Your task to perform on an android device: turn off improve location accuracy Image 0: 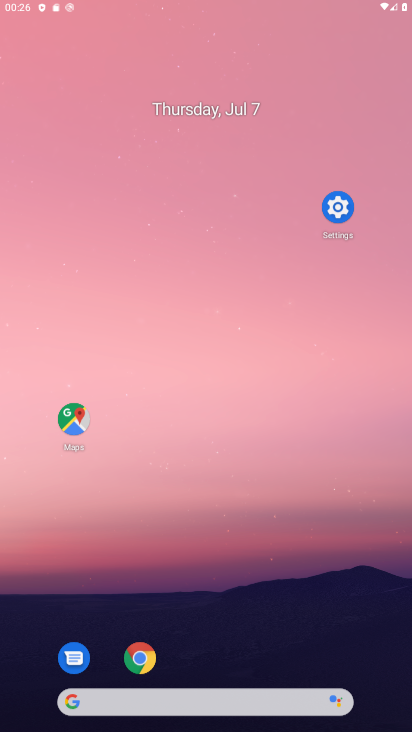
Step 0: press back button
Your task to perform on an android device: turn off improve location accuracy Image 1: 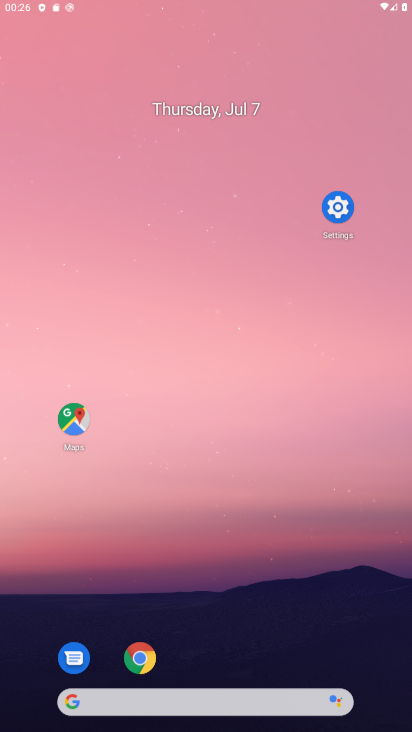
Step 1: press home button
Your task to perform on an android device: turn off improve location accuracy Image 2: 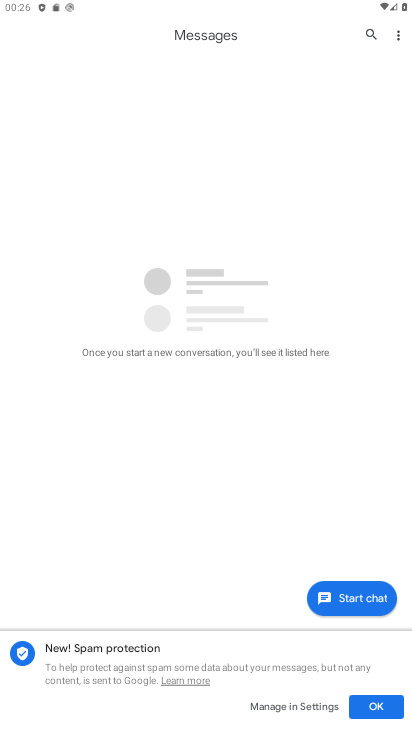
Step 2: click (162, 17)
Your task to perform on an android device: turn off improve location accuracy Image 3: 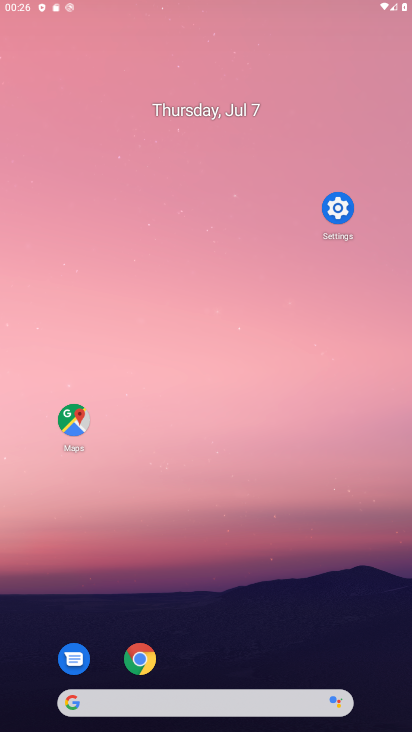
Step 3: drag from (193, 471) to (153, 18)
Your task to perform on an android device: turn off improve location accuracy Image 4: 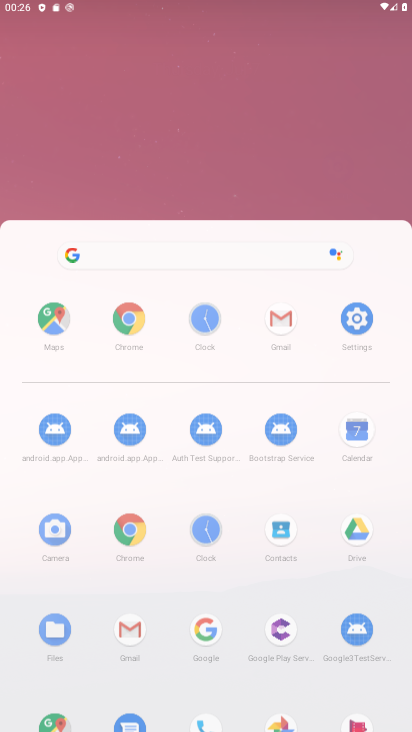
Step 4: drag from (254, 537) to (205, 163)
Your task to perform on an android device: turn off improve location accuracy Image 5: 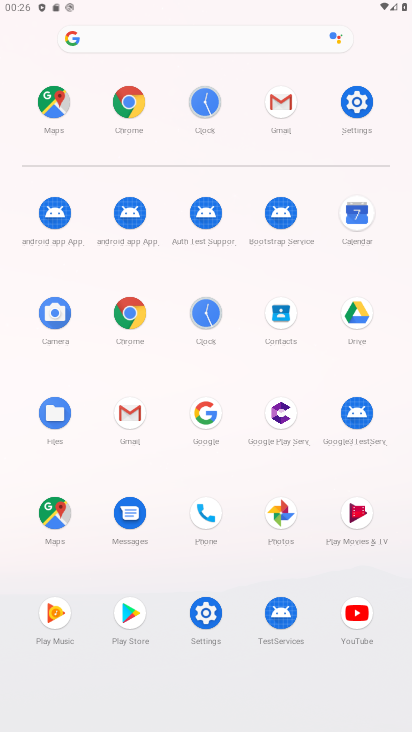
Step 5: click (337, 120)
Your task to perform on an android device: turn off improve location accuracy Image 6: 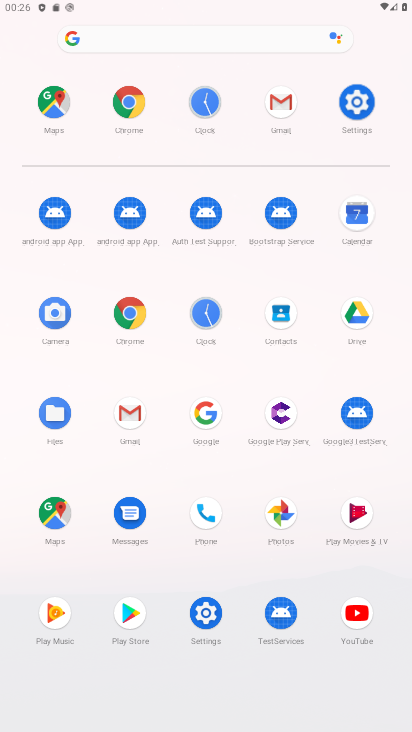
Step 6: click (348, 118)
Your task to perform on an android device: turn off improve location accuracy Image 7: 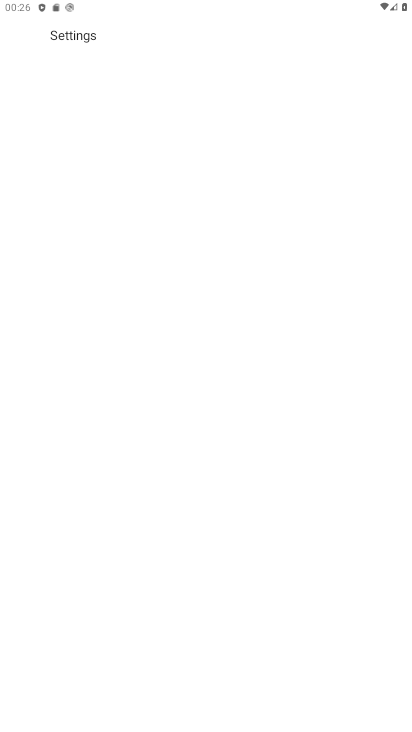
Step 7: click (361, 106)
Your task to perform on an android device: turn off improve location accuracy Image 8: 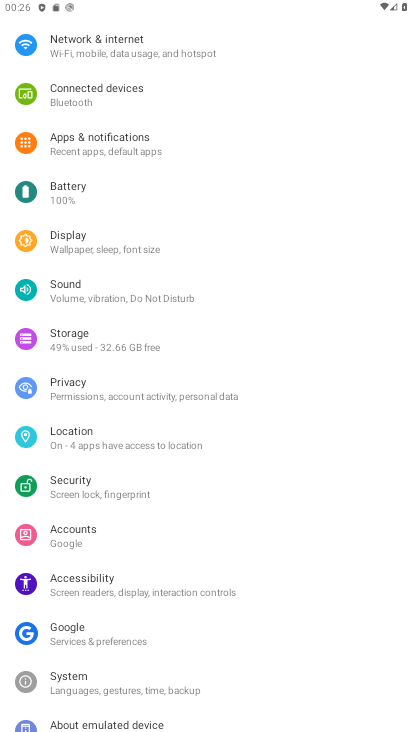
Step 8: click (361, 106)
Your task to perform on an android device: turn off improve location accuracy Image 9: 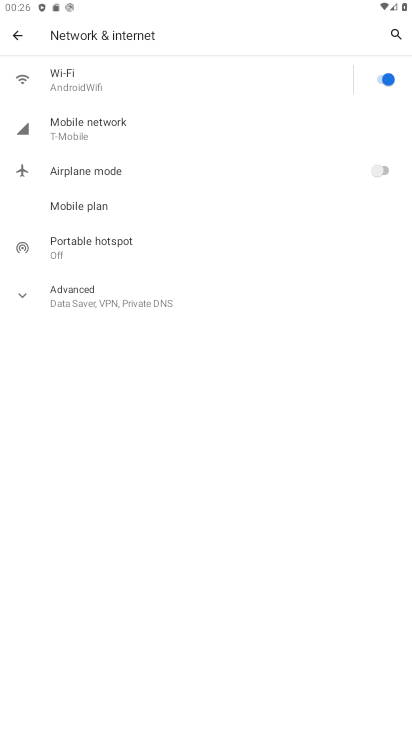
Step 9: drag from (88, 210) to (190, 548)
Your task to perform on an android device: turn off improve location accuracy Image 10: 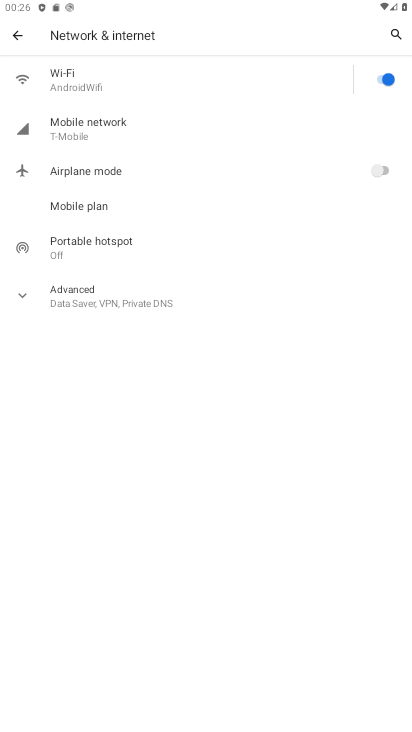
Step 10: click (9, 29)
Your task to perform on an android device: turn off improve location accuracy Image 11: 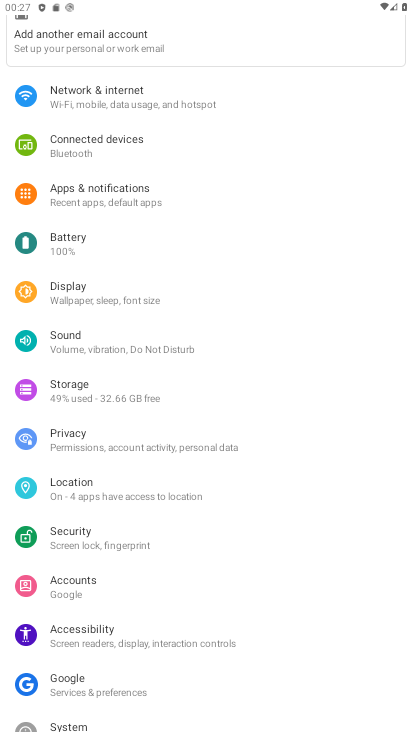
Step 11: click (98, 492)
Your task to perform on an android device: turn off improve location accuracy Image 12: 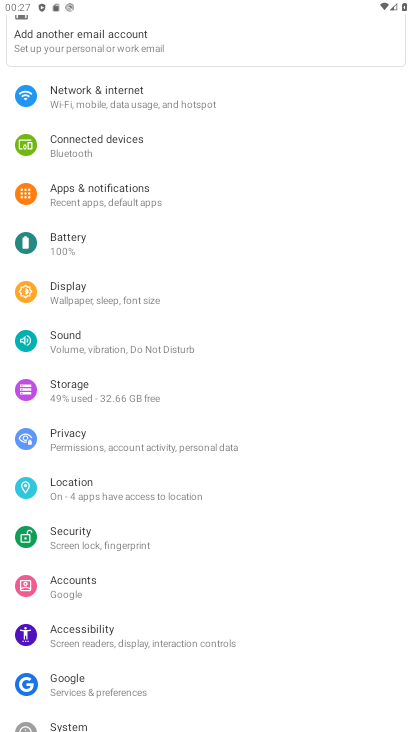
Step 12: click (98, 492)
Your task to perform on an android device: turn off improve location accuracy Image 13: 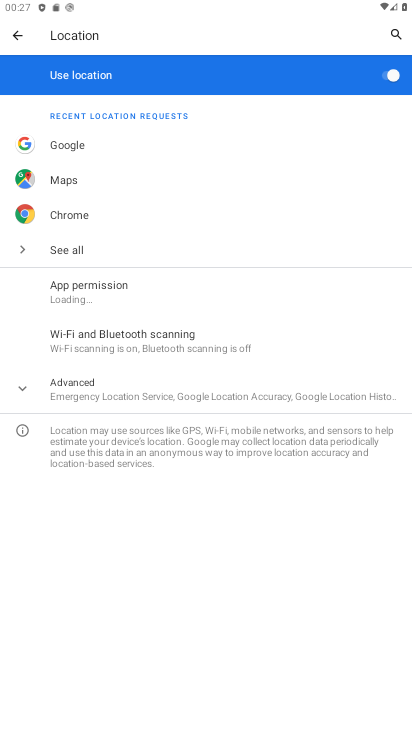
Step 13: click (88, 393)
Your task to perform on an android device: turn off improve location accuracy Image 14: 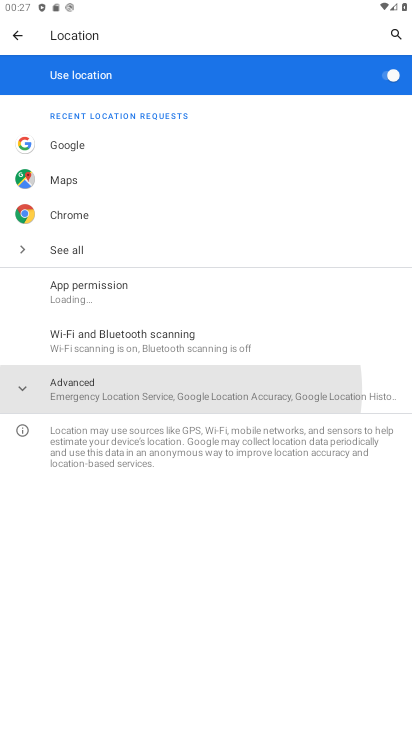
Step 14: click (87, 394)
Your task to perform on an android device: turn off improve location accuracy Image 15: 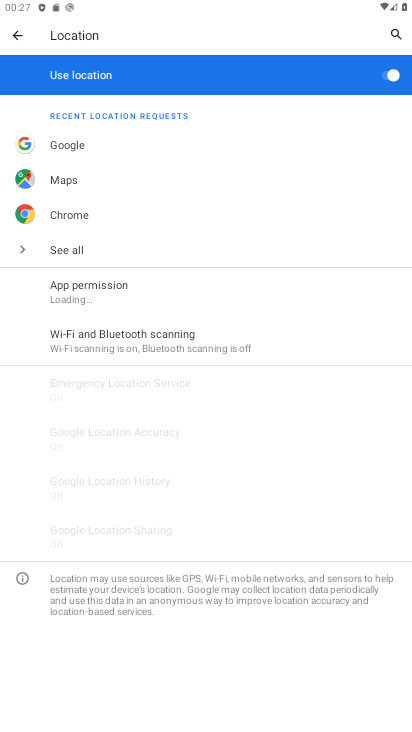
Step 15: click (87, 394)
Your task to perform on an android device: turn off improve location accuracy Image 16: 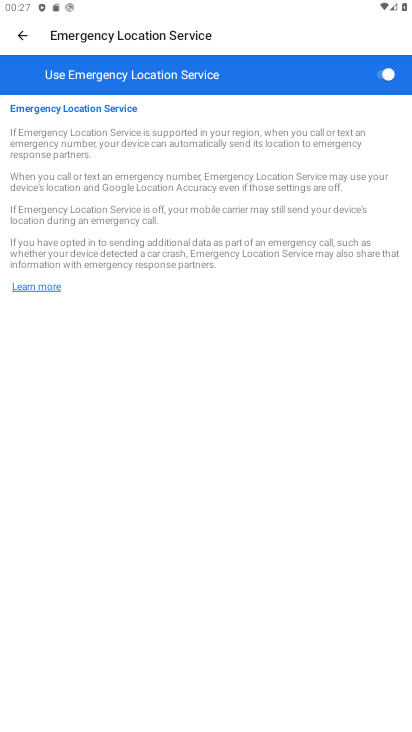
Step 16: click (20, 31)
Your task to perform on an android device: turn off improve location accuracy Image 17: 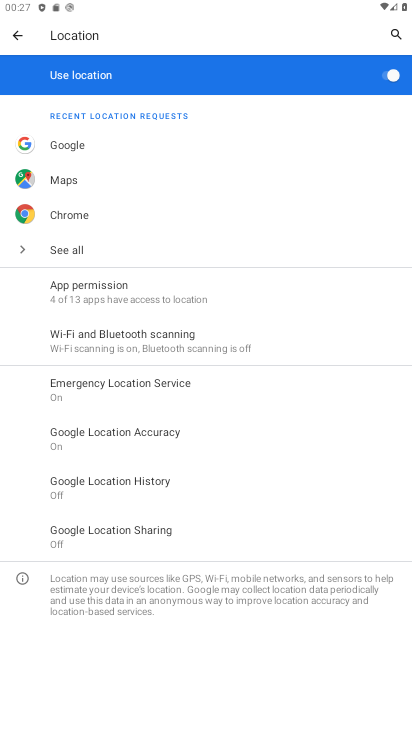
Step 17: click (144, 432)
Your task to perform on an android device: turn off improve location accuracy Image 18: 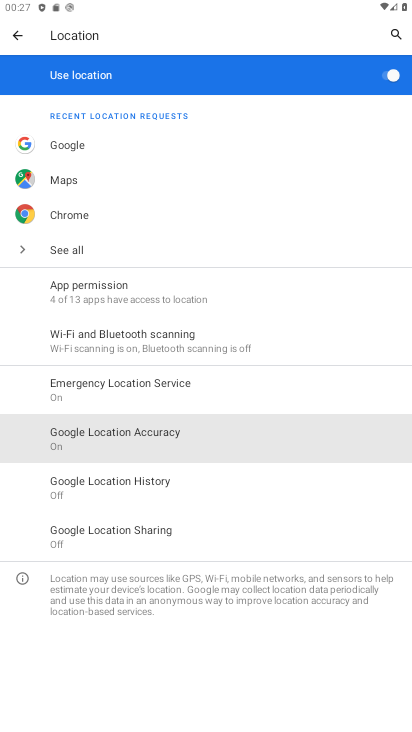
Step 18: click (143, 431)
Your task to perform on an android device: turn off improve location accuracy Image 19: 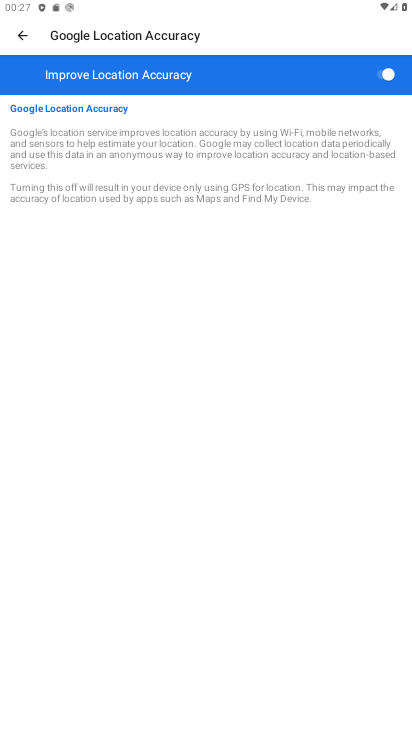
Step 19: click (379, 76)
Your task to perform on an android device: turn off improve location accuracy Image 20: 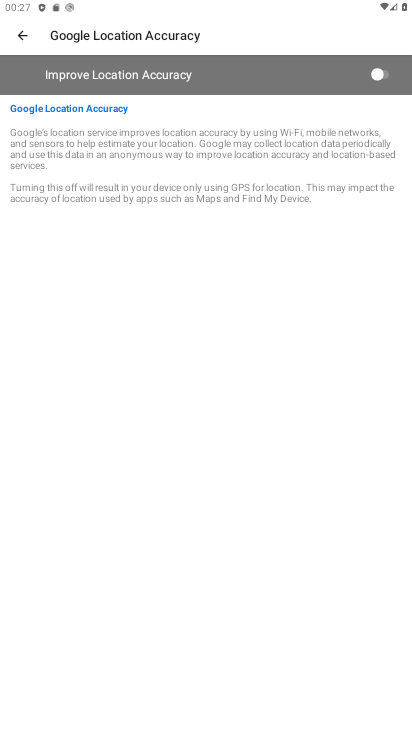
Step 20: task complete